Your task to perform on an android device: Open battery settings Image 0: 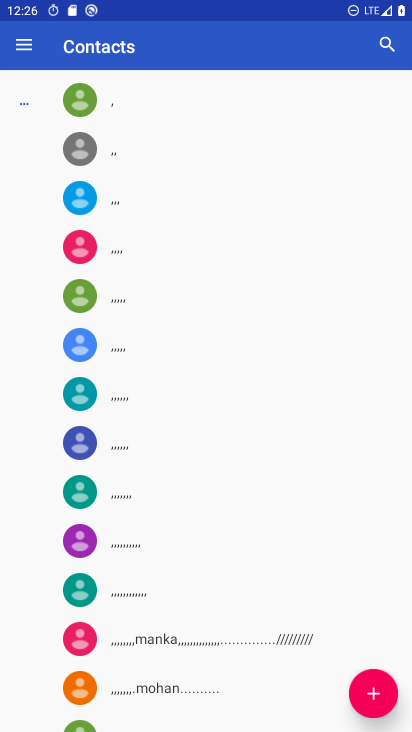
Step 0: press home button
Your task to perform on an android device: Open battery settings Image 1: 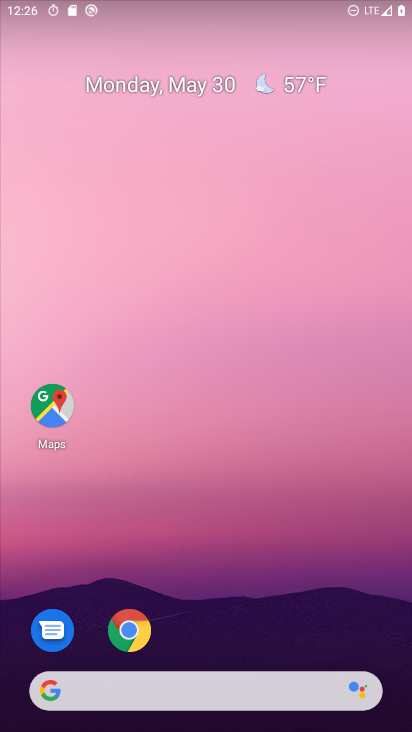
Step 1: drag from (204, 716) to (128, 29)
Your task to perform on an android device: Open battery settings Image 2: 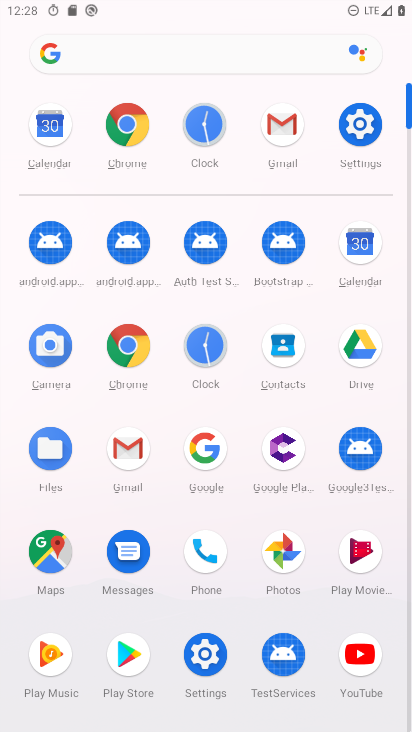
Step 2: click (352, 146)
Your task to perform on an android device: Open battery settings Image 3: 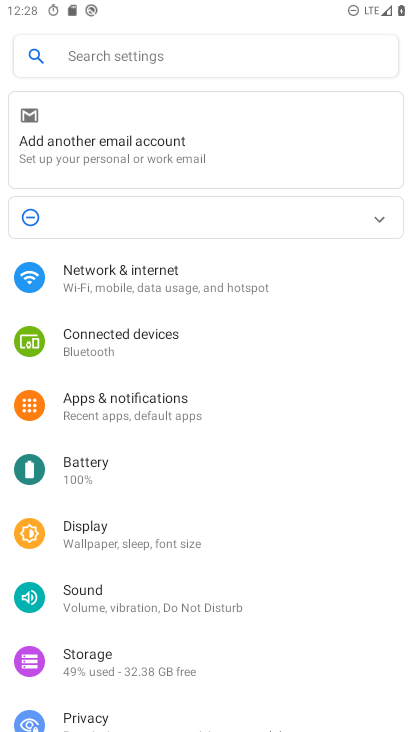
Step 3: click (141, 468)
Your task to perform on an android device: Open battery settings Image 4: 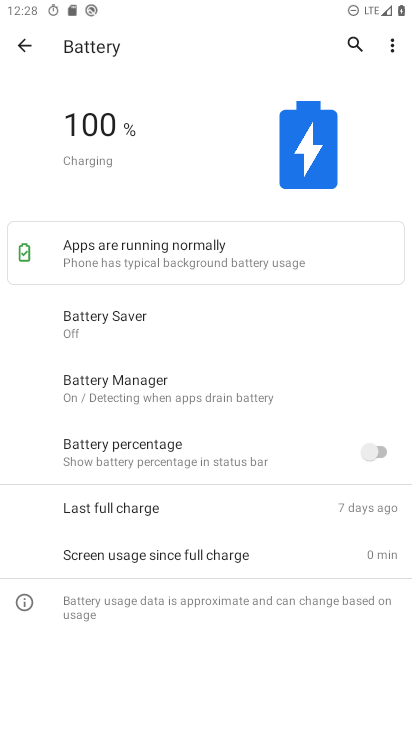
Step 4: task complete